Your task to perform on an android device: Is it going to rain this weekend? Image 0: 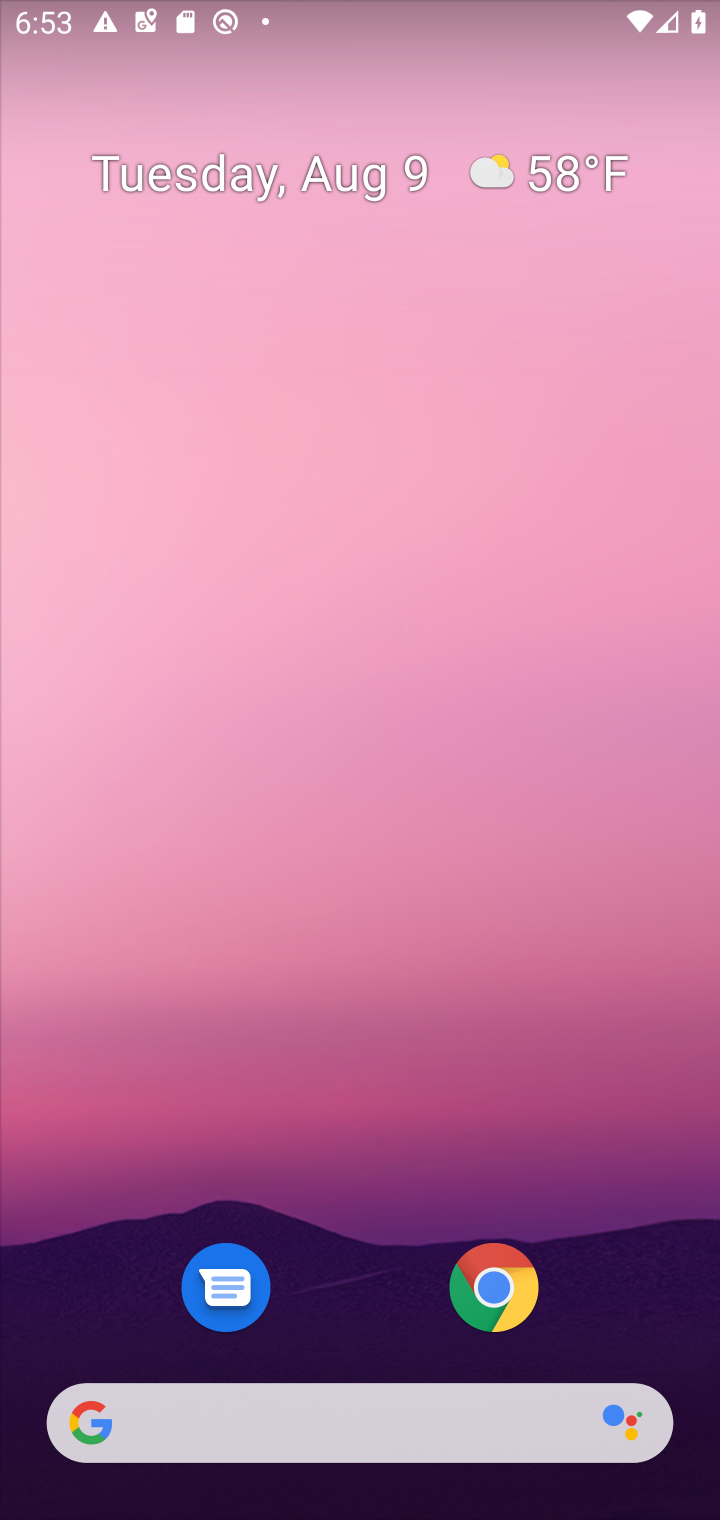
Step 0: drag from (400, 1340) to (404, 192)
Your task to perform on an android device: Is it going to rain this weekend? Image 1: 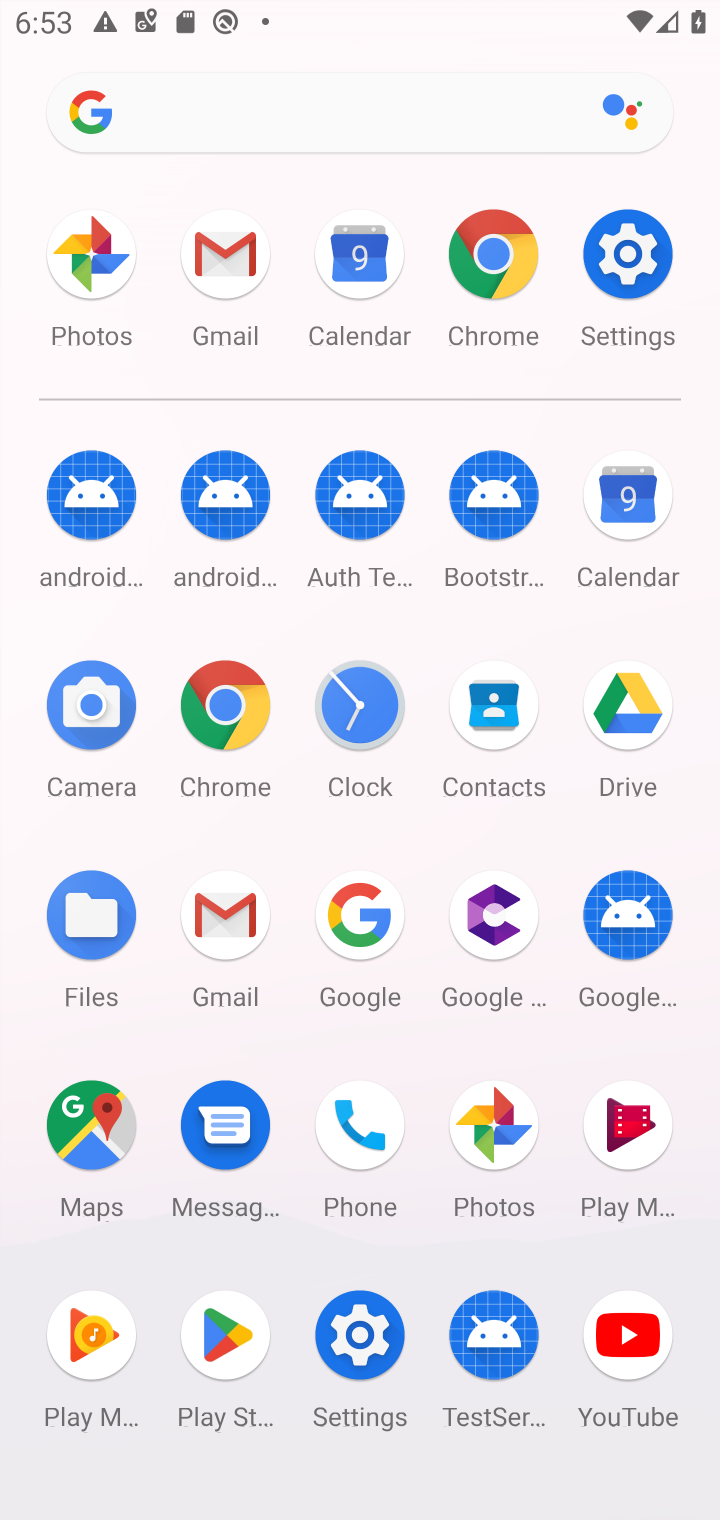
Step 1: click (233, 710)
Your task to perform on an android device: Is it going to rain this weekend? Image 2: 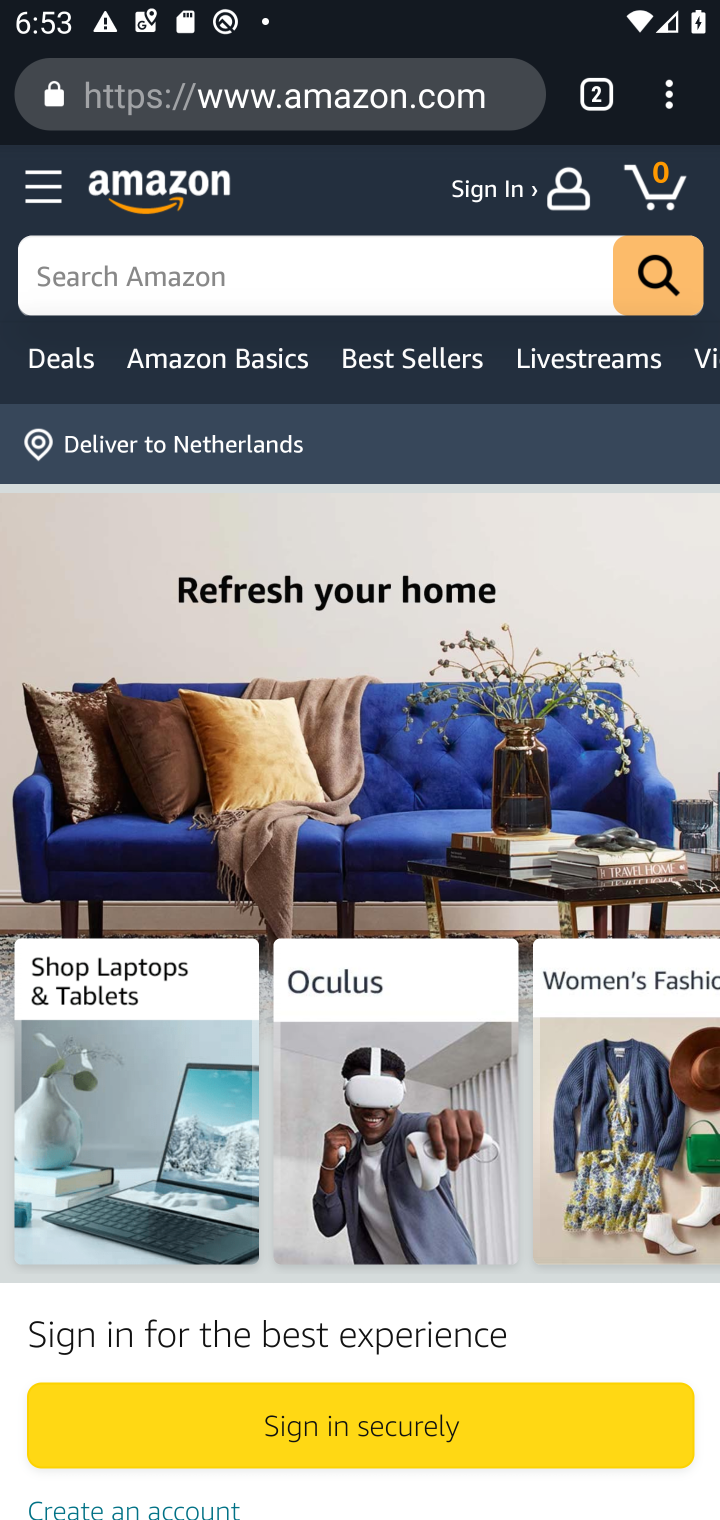
Step 2: click (412, 98)
Your task to perform on an android device: Is it going to rain this weekend? Image 3: 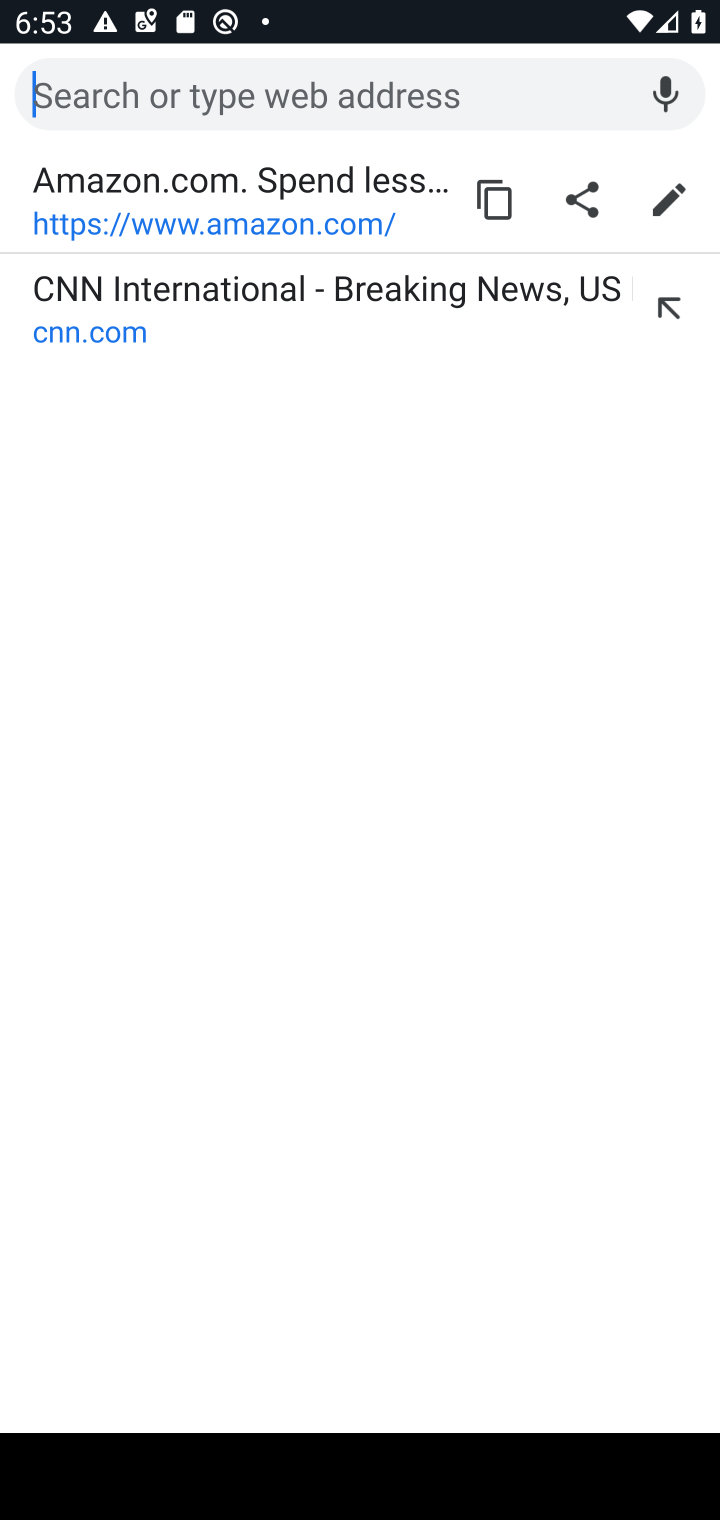
Step 3: type "Is it going to rain this weekend?"
Your task to perform on an android device: Is it going to rain this weekend? Image 4: 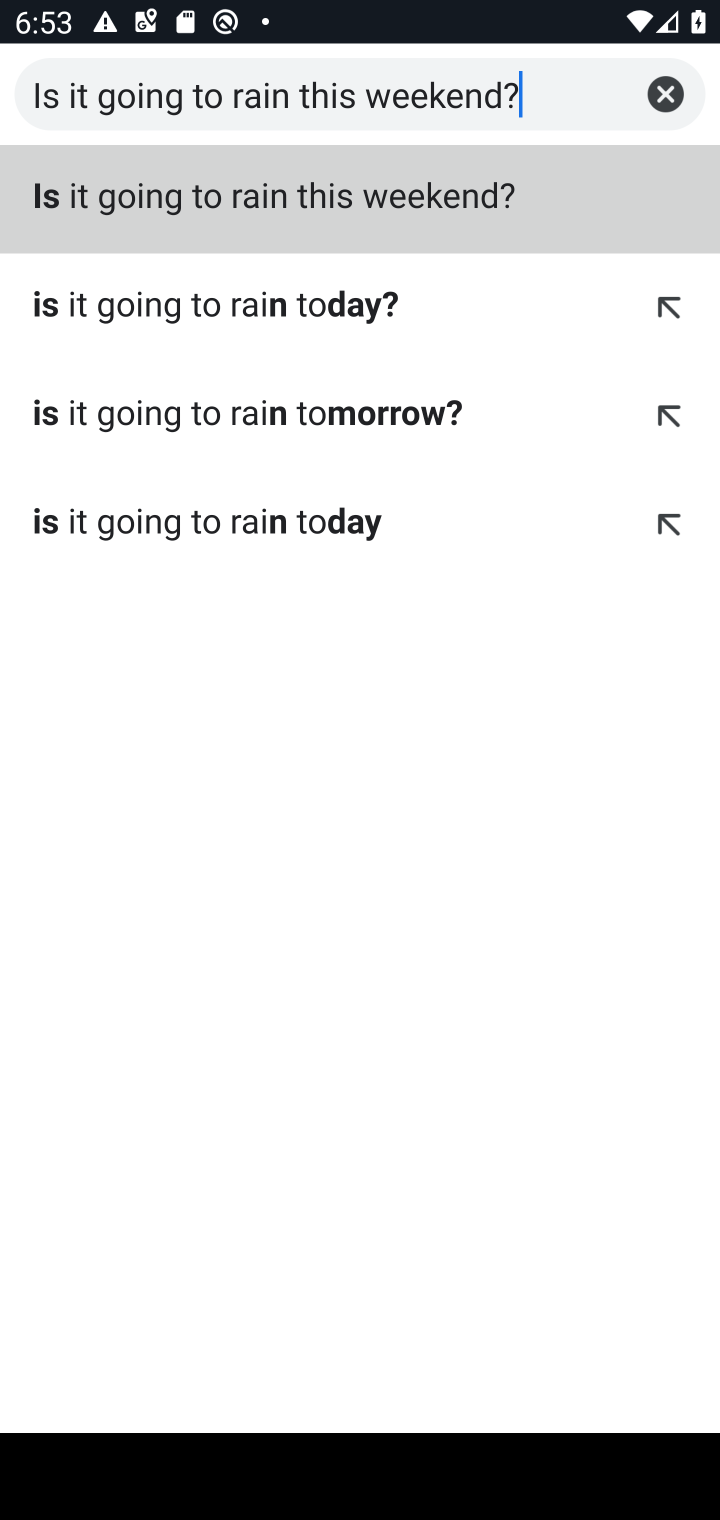
Step 4: press enter
Your task to perform on an android device: Is it going to rain this weekend? Image 5: 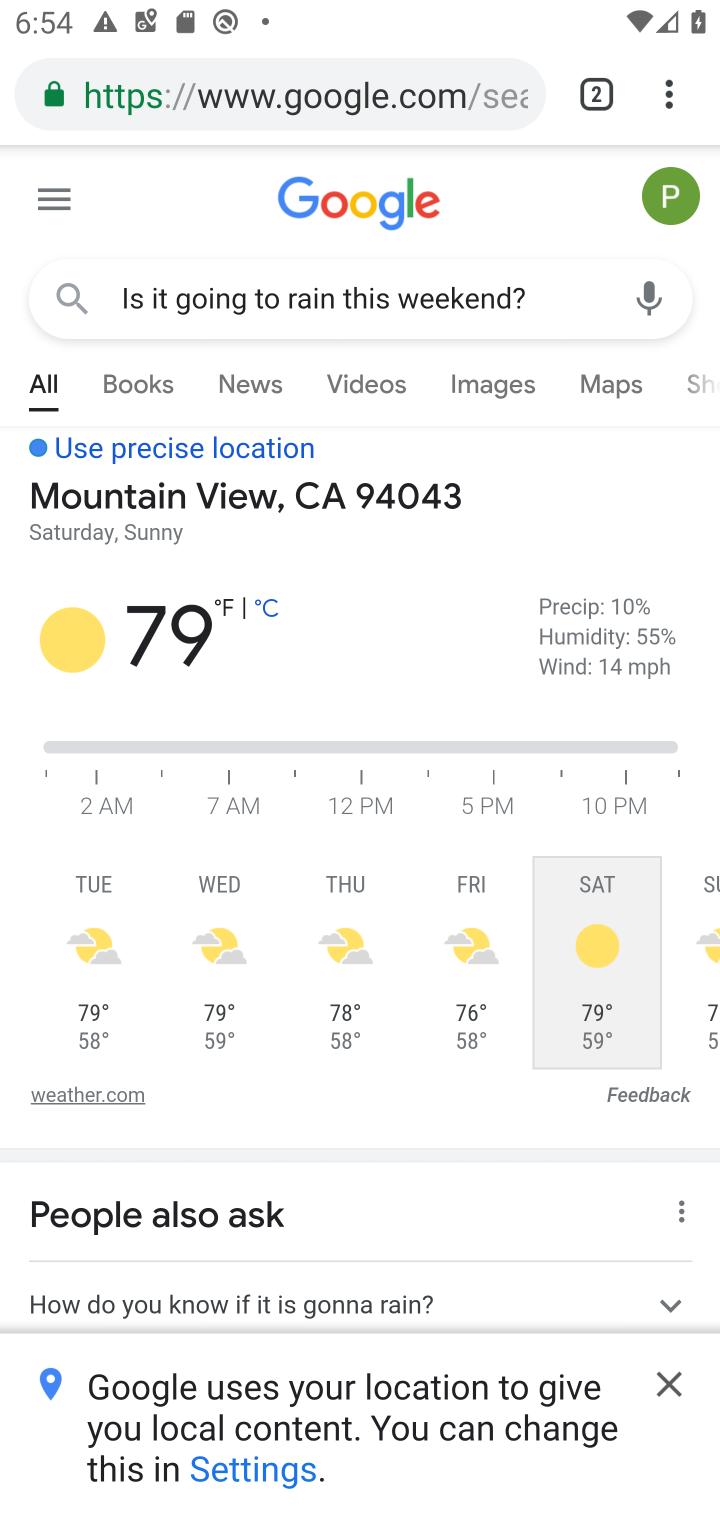
Step 5: task complete